Your task to perform on an android device: Go to notification settings Image 0: 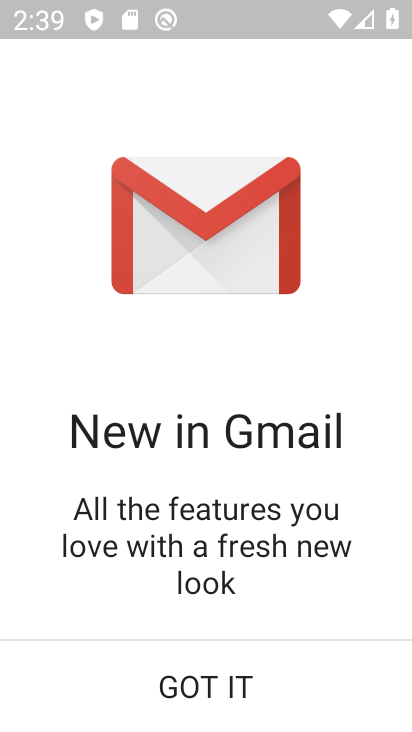
Step 0: click (229, 671)
Your task to perform on an android device: Go to notification settings Image 1: 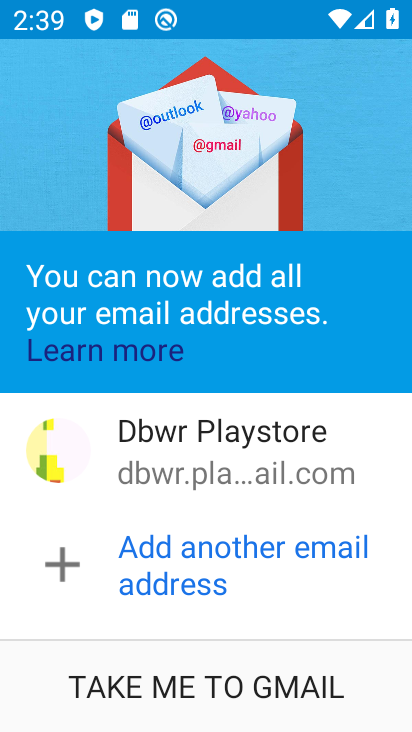
Step 1: click (195, 662)
Your task to perform on an android device: Go to notification settings Image 2: 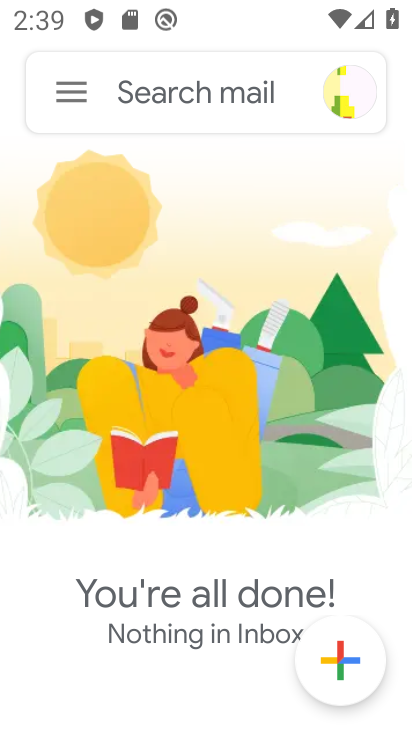
Step 2: press home button
Your task to perform on an android device: Go to notification settings Image 3: 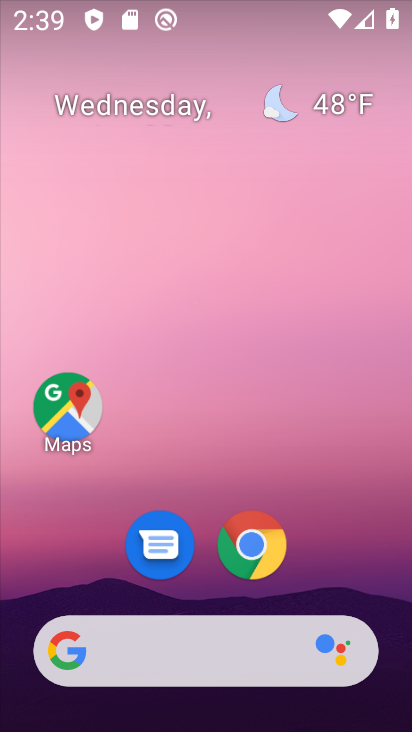
Step 3: drag from (288, 588) to (282, 98)
Your task to perform on an android device: Go to notification settings Image 4: 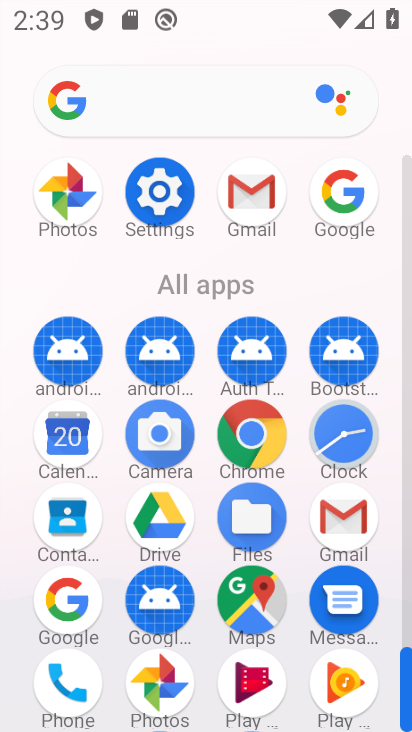
Step 4: click (156, 185)
Your task to perform on an android device: Go to notification settings Image 5: 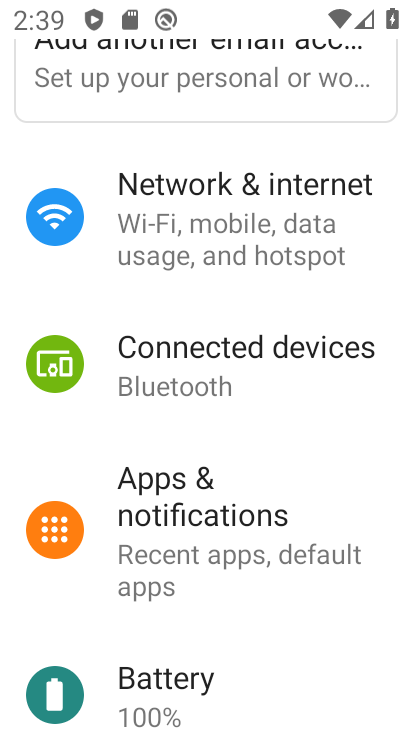
Step 5: click (245, 523)
Your task to perform on an android device: Go to notification settings Image 6: 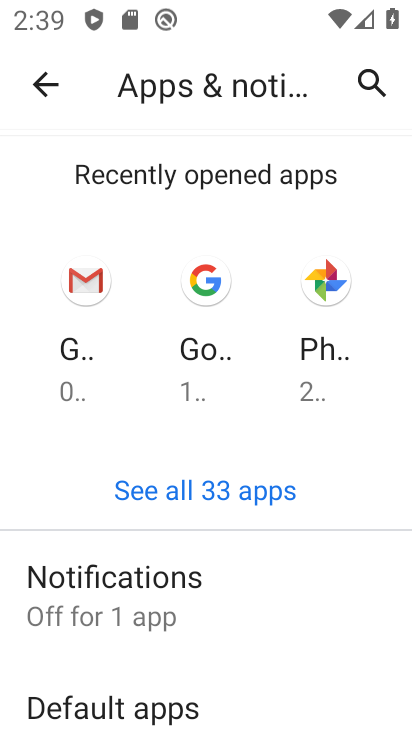
Step 6: task complete